Your task to perform on an android device: Search for the best selling jewelry on Etsy. Image 0: 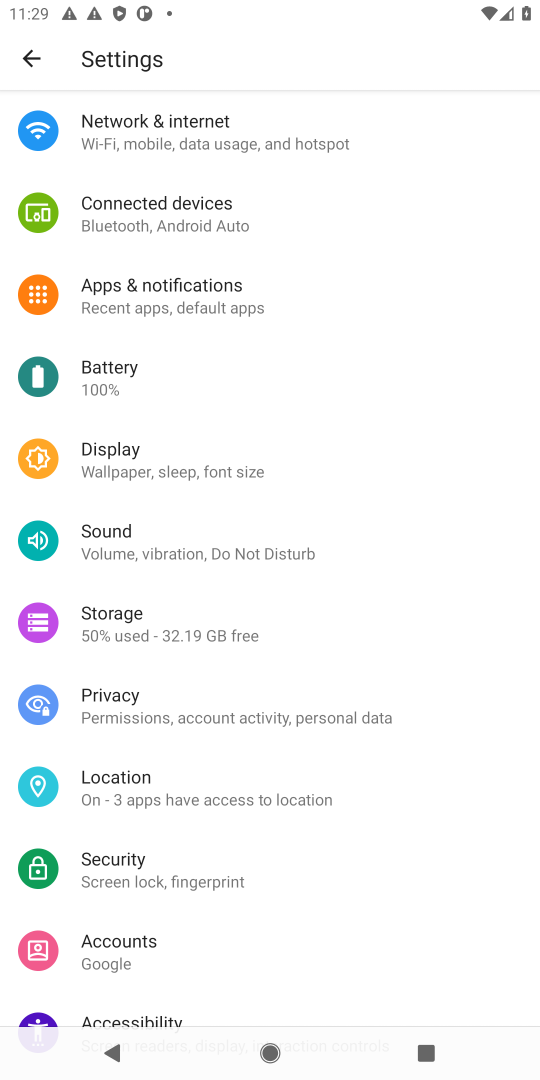
Step 0: press home button
Your task to perform on an android device: Search for the best selling jewelry on Etsy. Image 1: 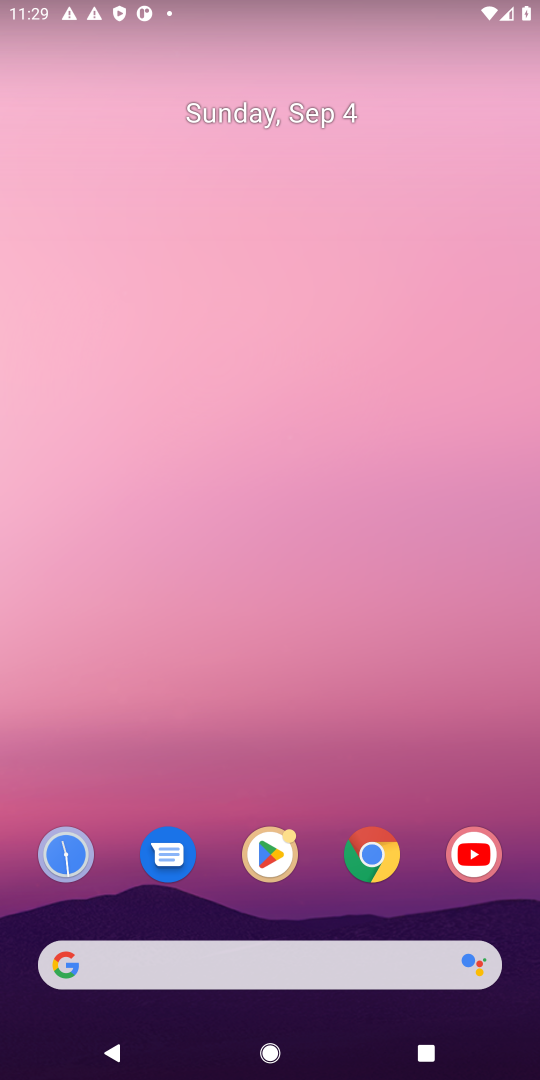
Step 1: click (375, 962)
Your task to perform on an android device: Search for the best selling jewelry on Etsy. Image 2: 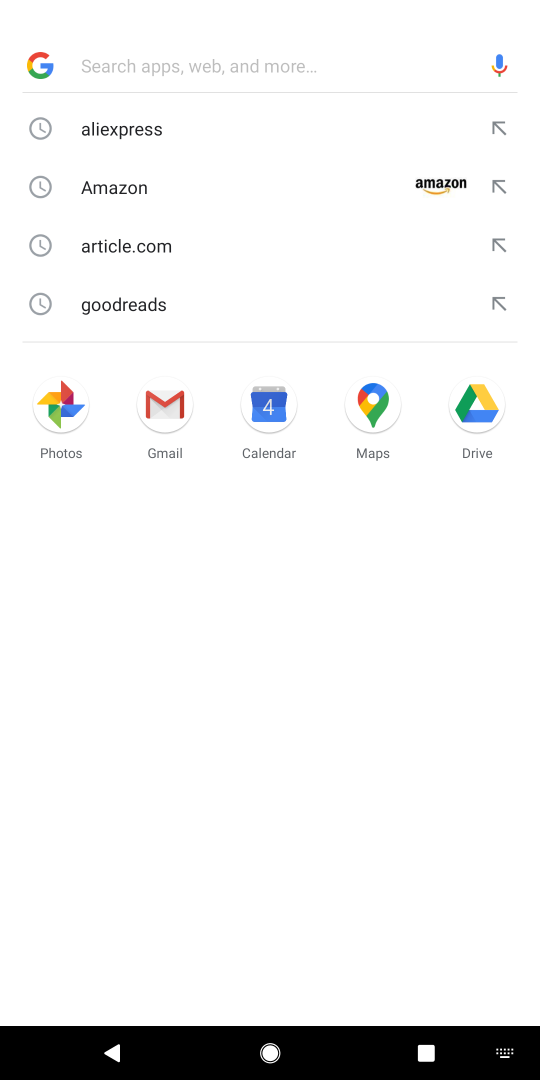
Step 2: press enter
Your task to perform on an android device: Search for the best selling jewelry on Etsy. Image 3: 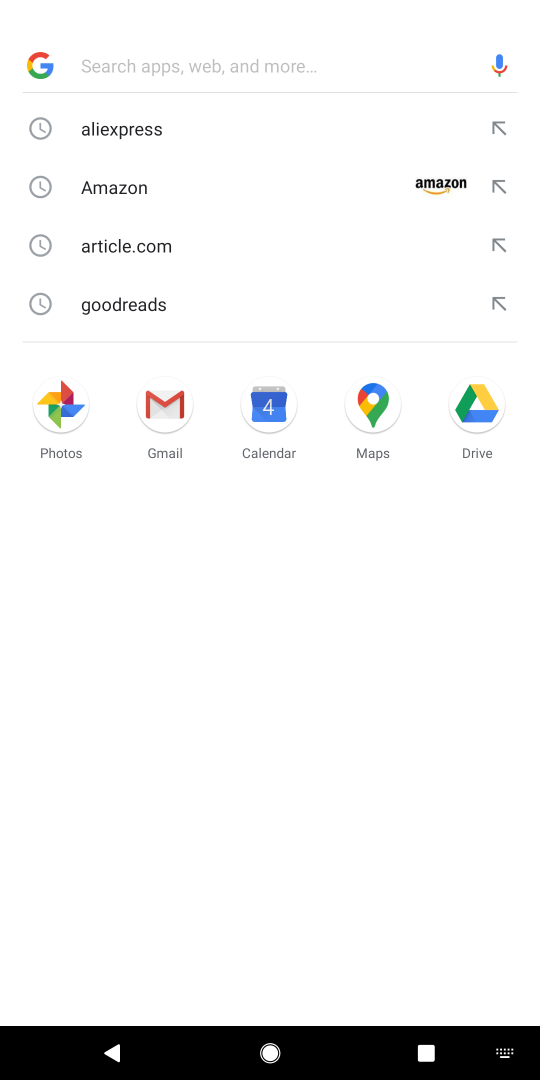
Step 3: type "etsy"
Your task to perform on an android device: Search for the best selling jewelry on Etsy. Image 4: 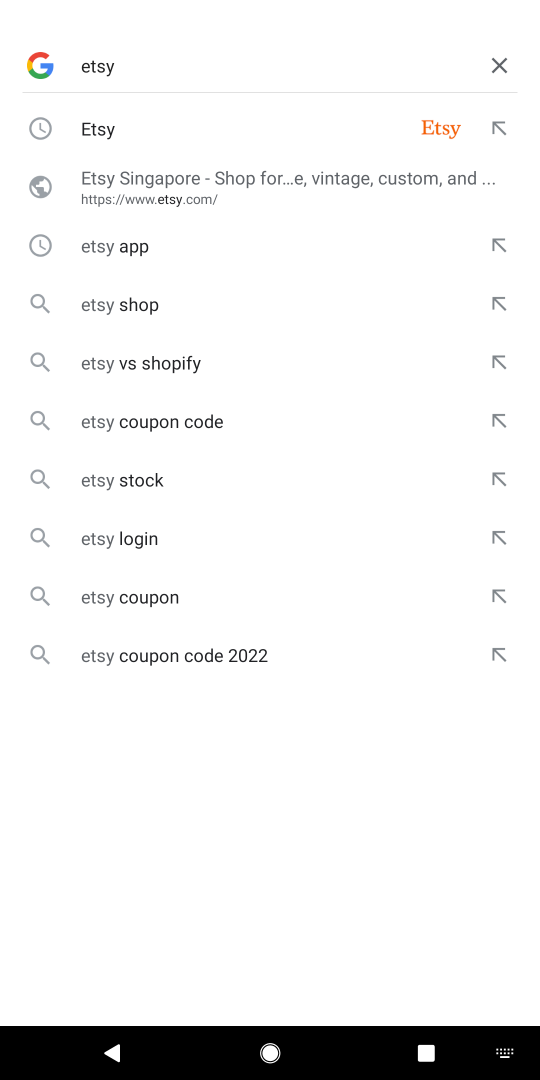
Step 4: click (193, 124)
Your task to perform on an android device: Search for the best selling jewelry on Etsy. Image 5: 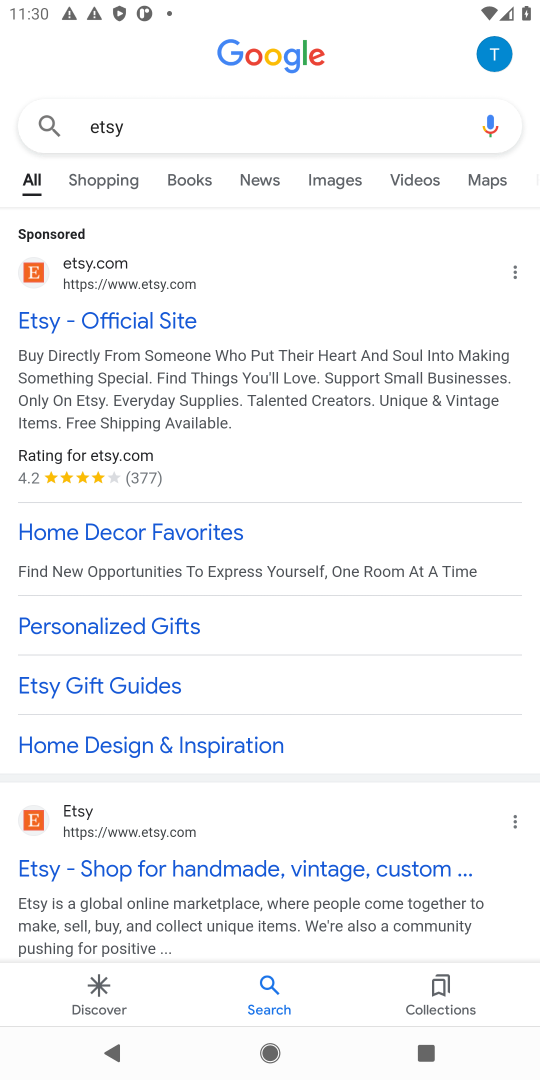
Step 5: click (149, 313)
Your task to perform on an android device: Search for the best selling jewelry on Etsy. Image 6: 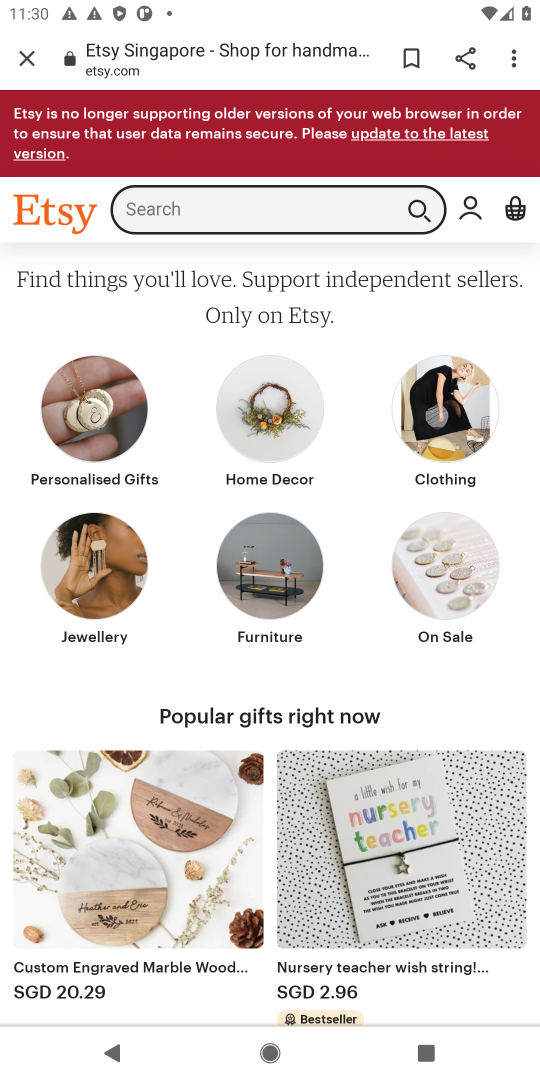
Step 6: click (161, 206)
Your task to perform on an android device: Search for the best selling jewelry on Etsy. Image 7: 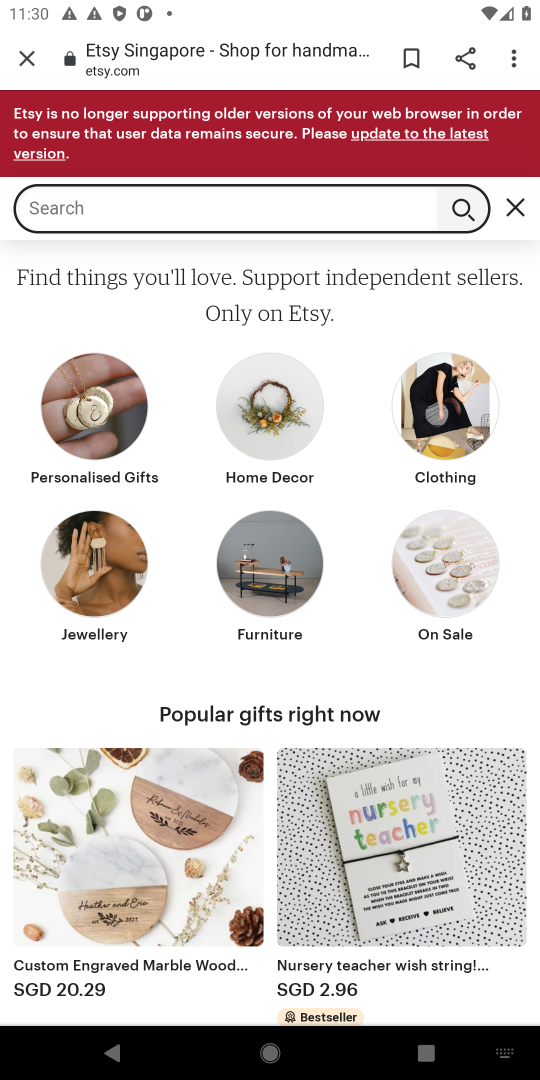
Step 7: type "best selling jewelry"
Your task to perform on an android device: Search for the best selling jewelry on Etsy. Image 8: 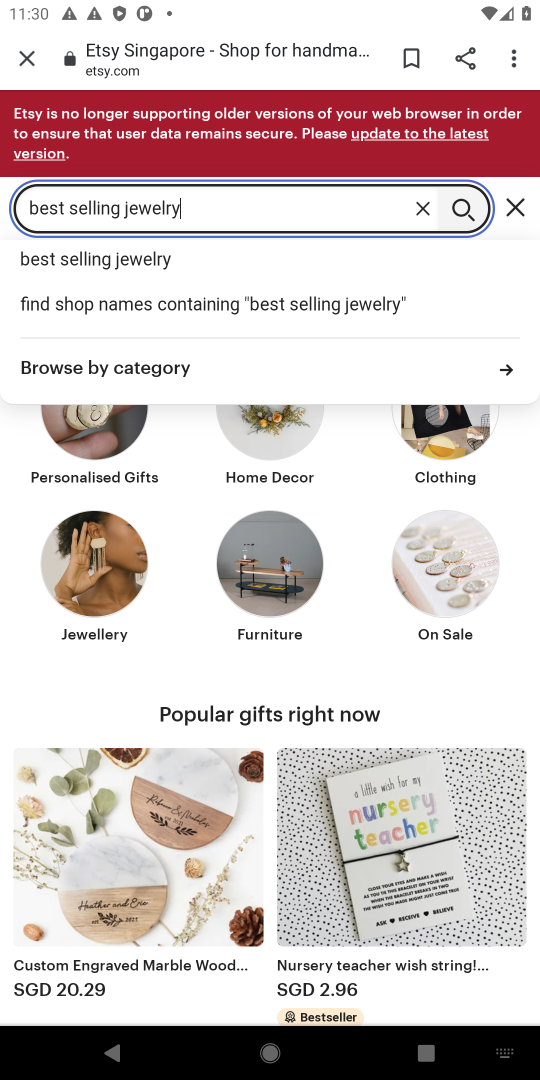
Step 8: click (206, 258)
Your task to perform on an android device: Search for the best selling jewelry on Etsy. Image 9: 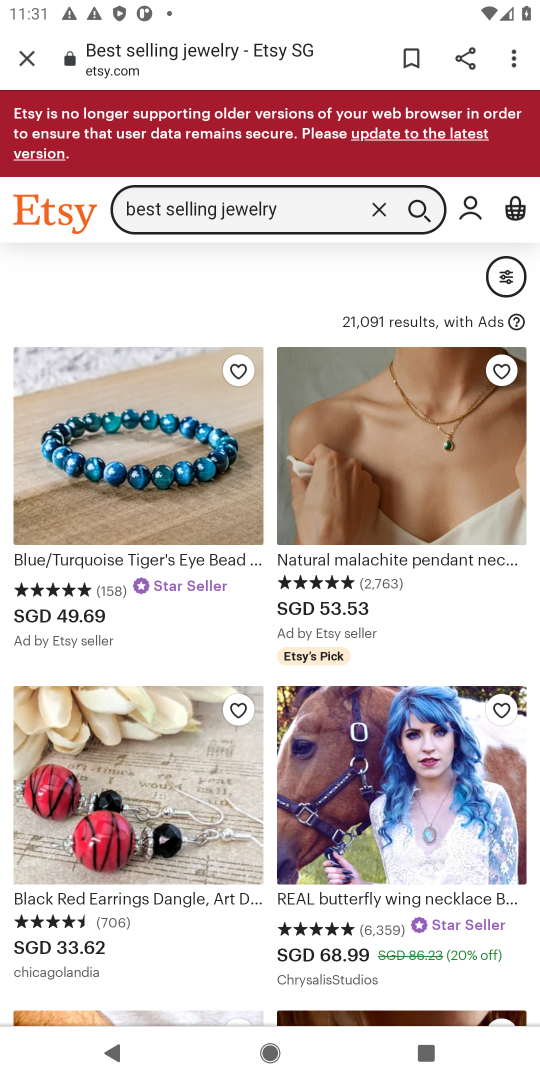
Step 9: task complete